Your task to perform on an android device: turn off javascript in the chrome app Image 0: 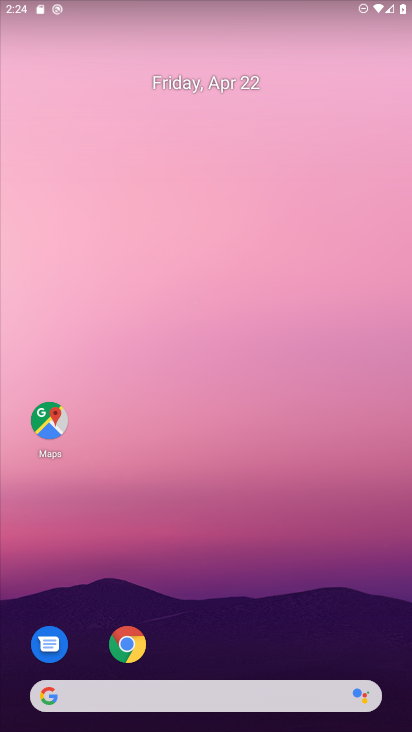
Step 0: drag from (257, 43) to (222, 97)
Your task to perform on an android device: turn off javascript in the chrome app Image 1: 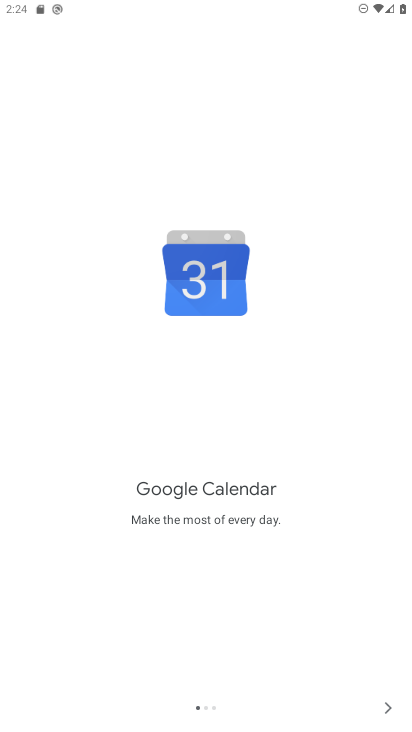
Step 1: press home button
Your task to perform on an android device: turn off javascript in the chrome app Image 2: 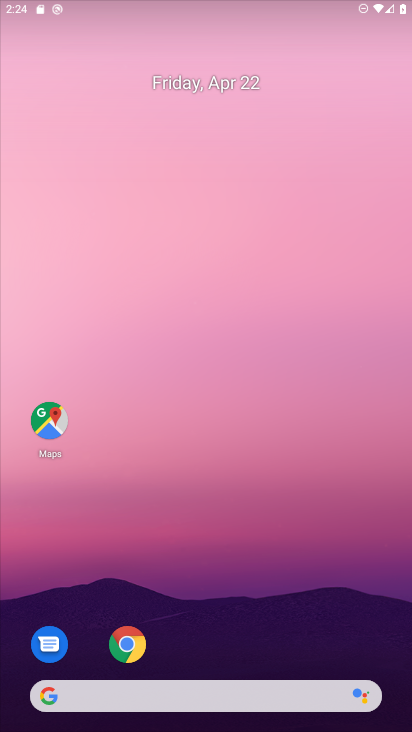
Step 2: drag from (272, 585) to (262, 224)
Your task to perform on an android device: turn off javascript in the chrome app Image 3: 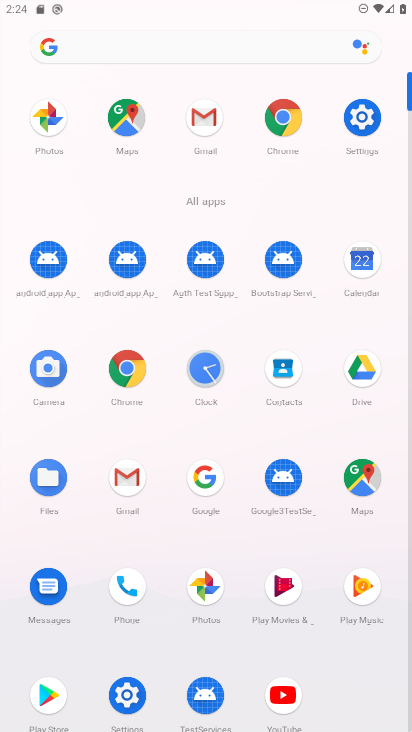
Step 3: click (124, 376)
Your task to perform on an android device: turn off javascript in the chrome app Image 4: 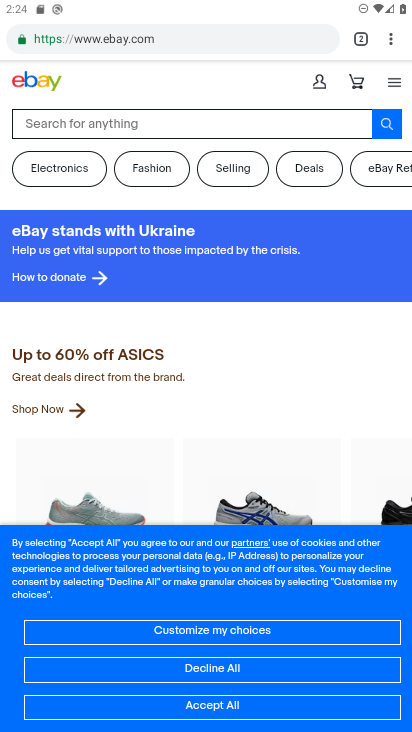
Step 4: click (394, 34)
Your task to perform on an android device: turn off javascript in the chrome app Image 5: 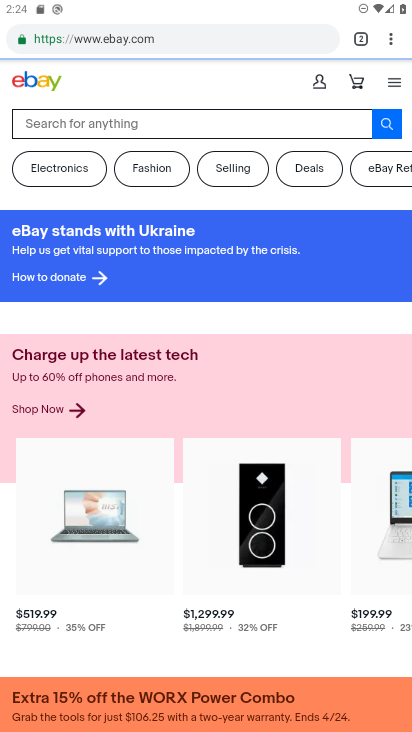
Step 5: drag from (392, 38) to (280, 524)
Your task to perform on an android device: turn off javascript in the chrome app Image 6: 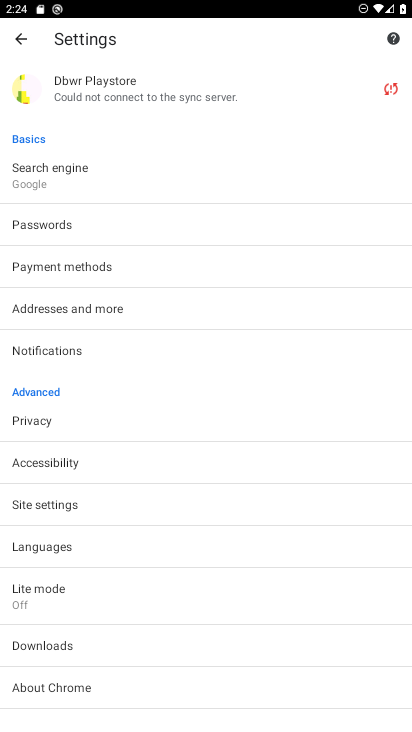
Step 6: click (95, 506)
Your task to perform on an android device: turn off javascript in the chrome app Image 7: 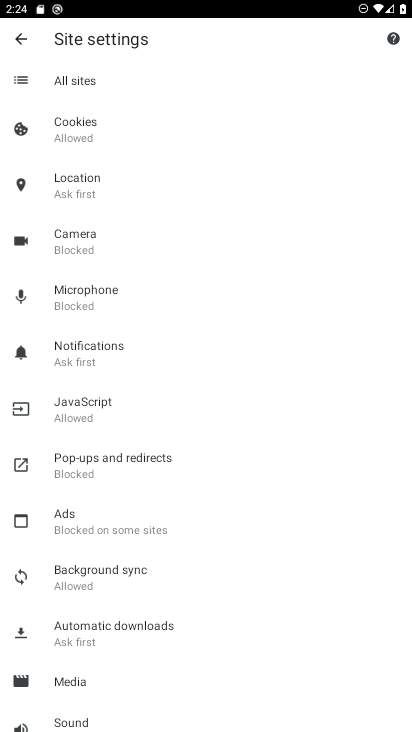
Step 7: click (95, 400)
Your task to perform on an android device: turn off javascript in the chrome app Image 8: 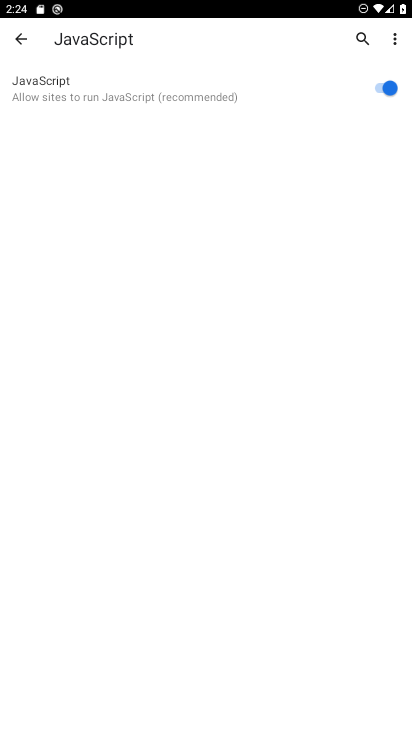
Step 8: click (257, 100)
Your task to perform on an android device: turn off javascript in the chrome app Image 9: 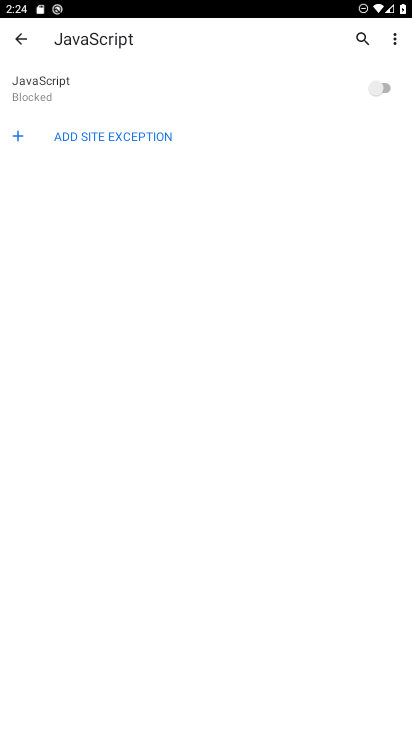
Step 9: task complete